Your task to perform on an android device: clear history in the chrome app Image 0: 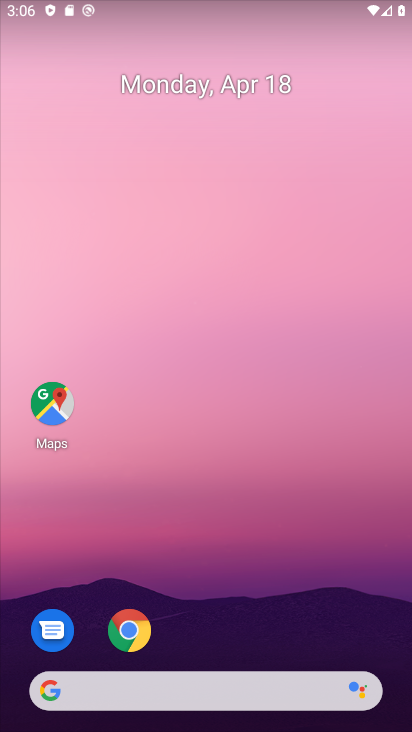
Step 0: click (125, 626)
Your task to perform on an android device: clear history in the chrome app Image 1: 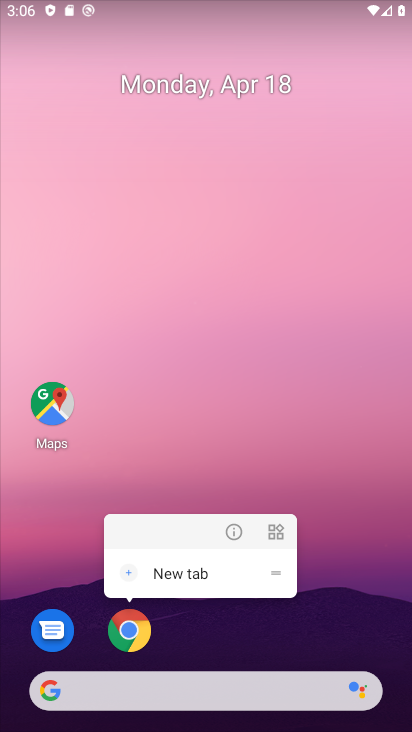
Step 1: click (139, 633)
Your task to perform on an android device: clear history in the chrome app Image 2: 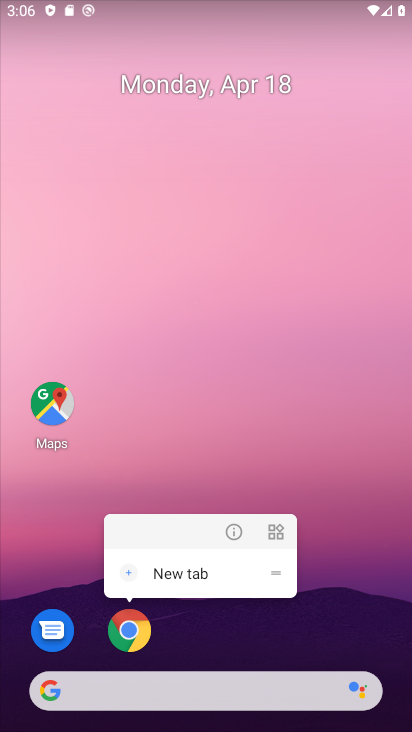
Step 2: click (126, 633)
Your task to perform on an android device: clear history in the chrome app Image 3: 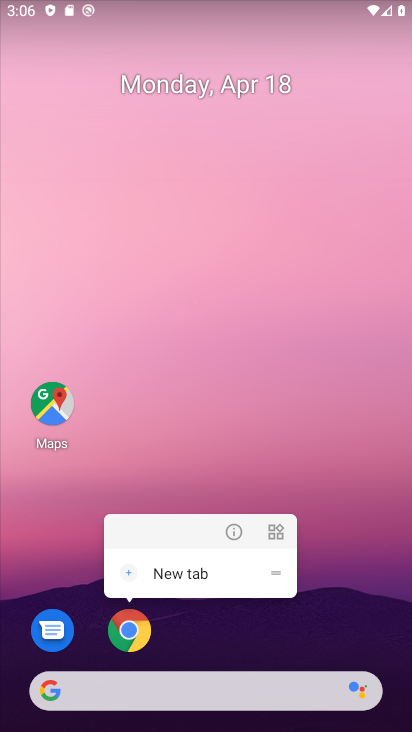
Step 3: click (134, 643)
Your task to perform on an android device: clear history in the chrome app Image 4: 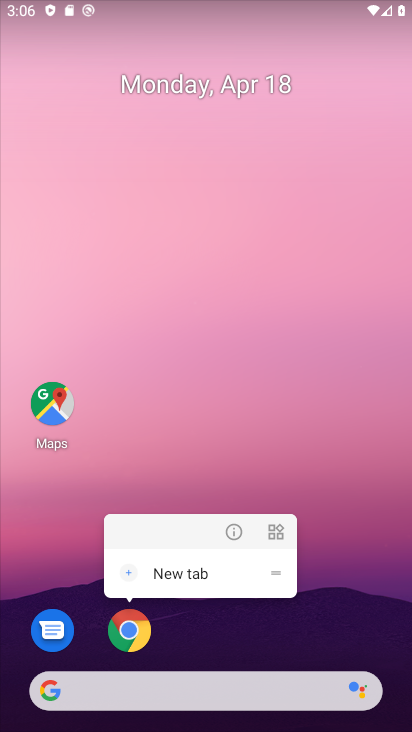
Step 4: click (134, 638)
Your task to perform on an android device: clear history in the chrome app Image 5: 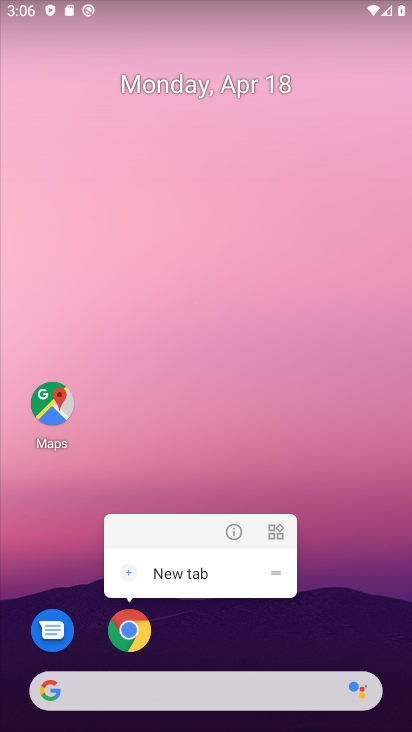
Step 5: click (144, 623)
Your task to perform on an android device: clear history in the chrome app Image 6: 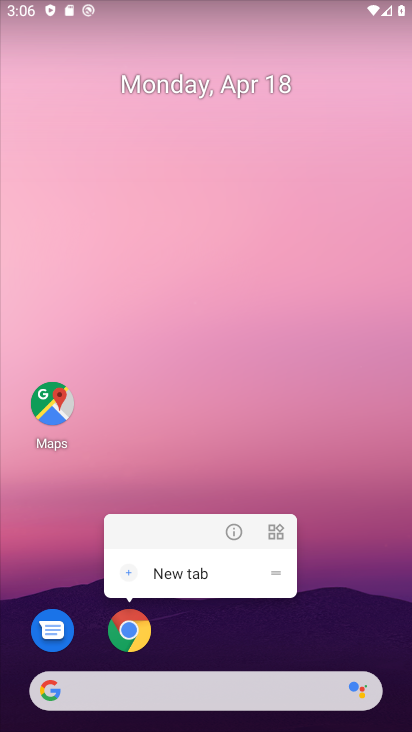
Step 6: click (117, 647)
Your task to perform on an android device: clear history in the chrome app Image 7: 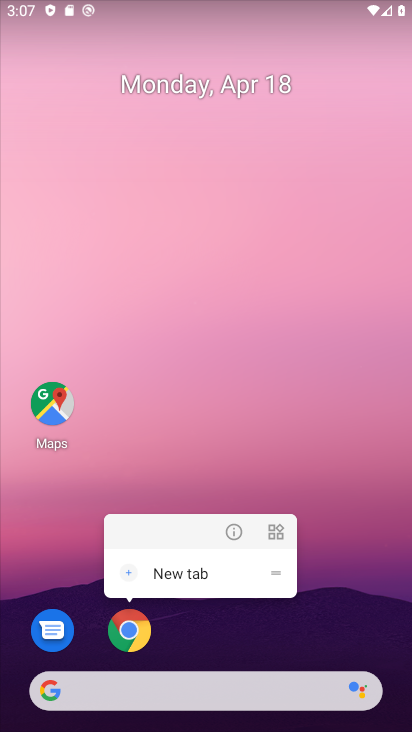
Step 7: click (123, 635)
Your task to perform on an android device: clear history in the chrome app Image 8: 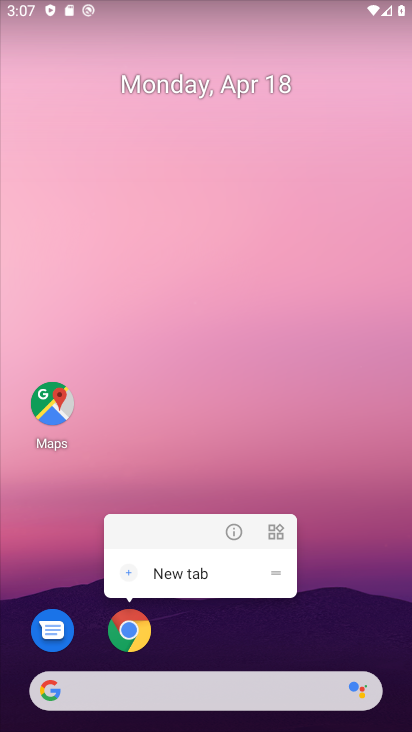
Step 8: click (123, 634)
Your task to perform on an android device: clear history in the chrome app Image 9: 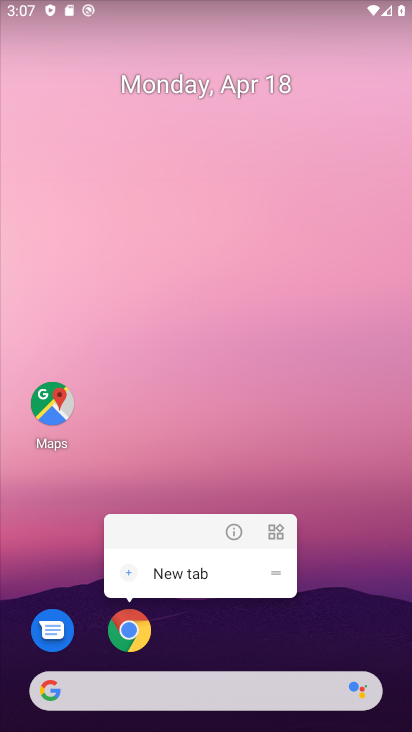
Step 9: click (141, 637)
Your task to perform on an android device: clear history in the chrome app Image 10: 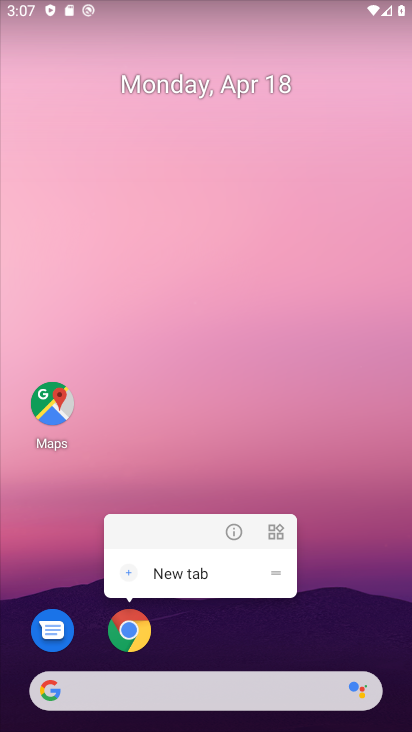
Step 10: click (236, 618)
Your task to perform on an android device: clear history in the chrome app Image 11: 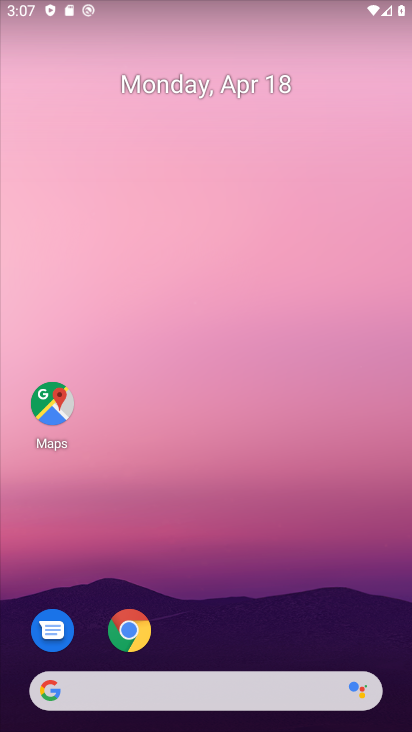
Step 11: click (144, 629)
Your task to perform on an android device: clear history in the chrome app Image 12: 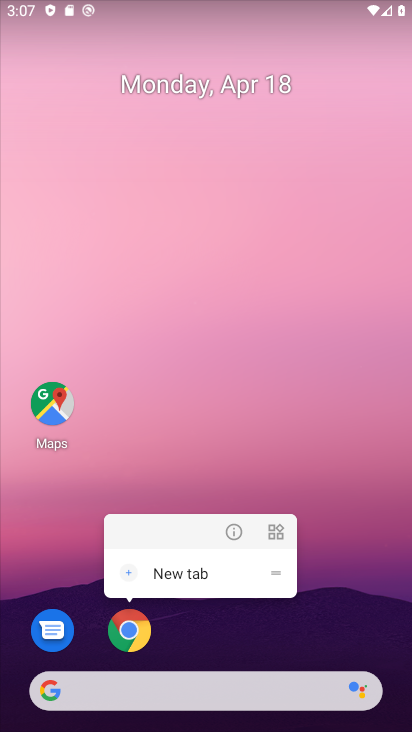
Step 12: click (131, 636)
Your task to perform on an android device: clear history in the chrome app Image 13: 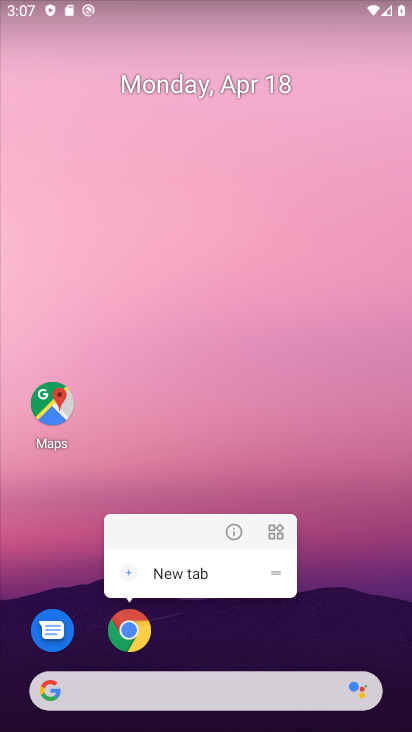
Step 13: click (118, 643)
Your task to perform on an android device: clear history in the chrome app Image 14: 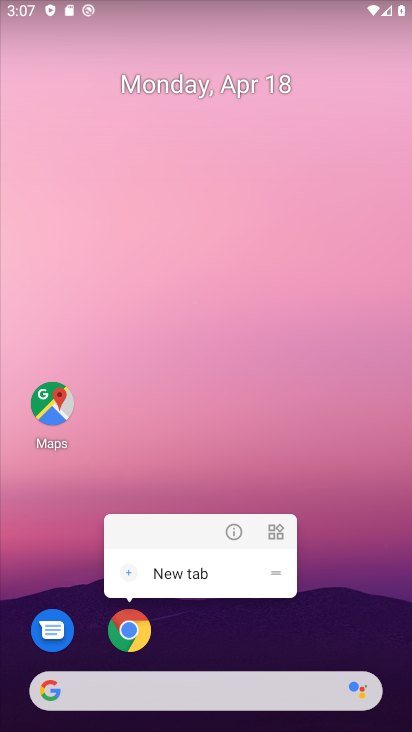
Step 14: click (128, 626)
Your task to perform on an android device: clear history in the chrome app Image 15: 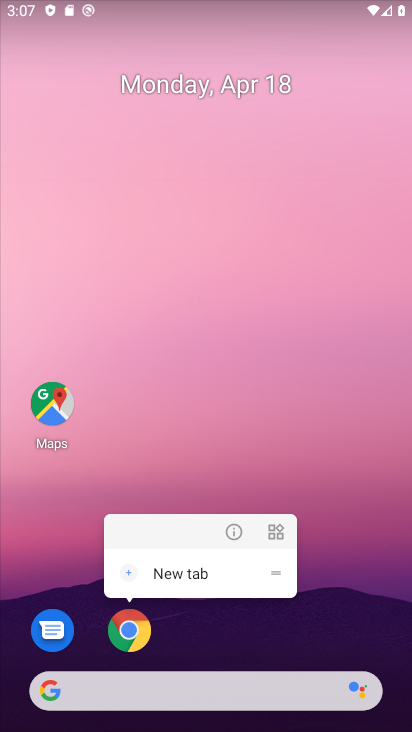
Step 15: click (132, 634)
Your task to perform on an android device: clear history in the chrome app Image 16: 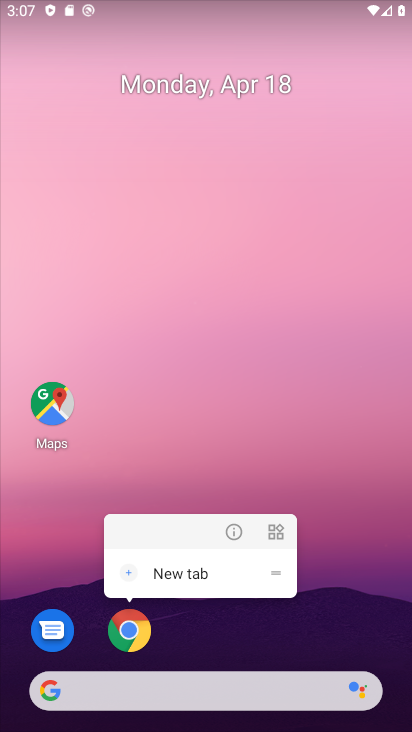
Step 16: drag from (365, 538) to (346, 2)
Your task to perform on an android device: clear history in the chrome app Image 17: 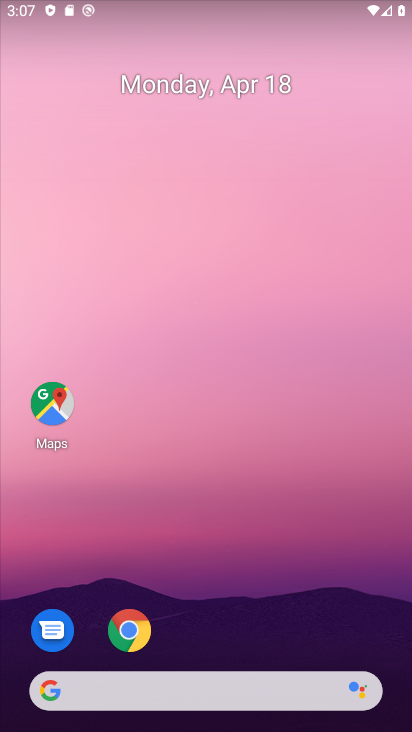
Step 17: drag from (289, 531) to (199, 120)
Your task to perform on an android device: clear history in the chrome app Image 18: 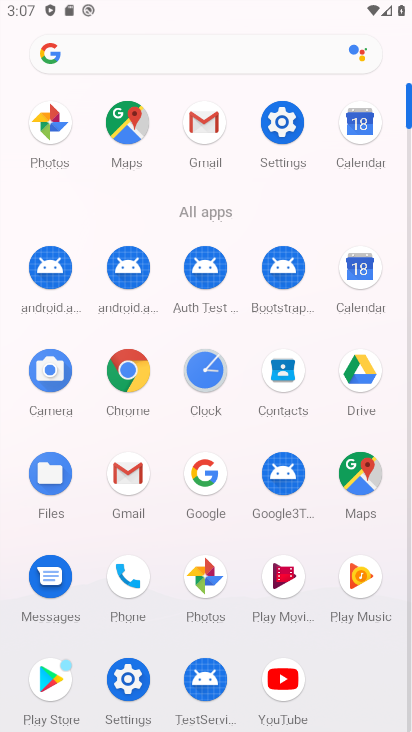
Step 18: click (127, 366)
Your task to perform on an android device: clear history in the chrome app Image 19: 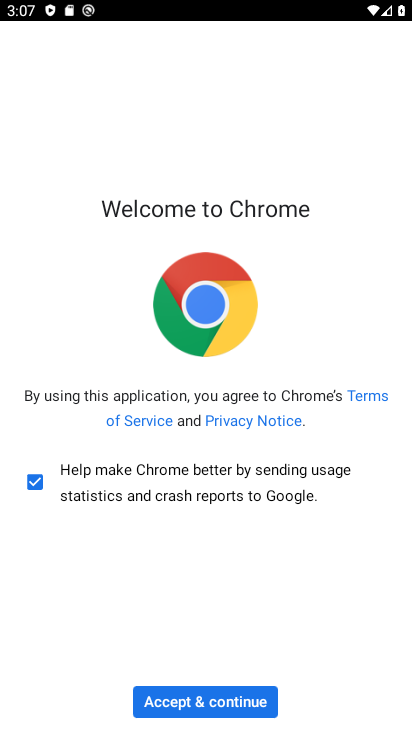
Step 19: click (225, 702)
Your task to perform on an android device: clear history in the chrome app Image 20: 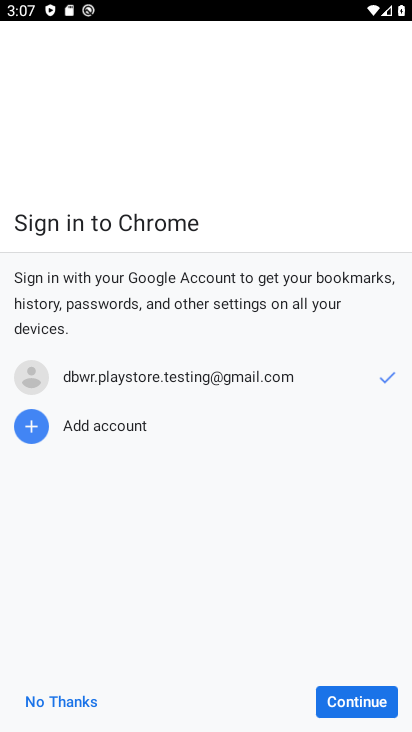
Step 20: click (384, 697)
Your task to perform on an android device: clear history in the chrome app Image 21: 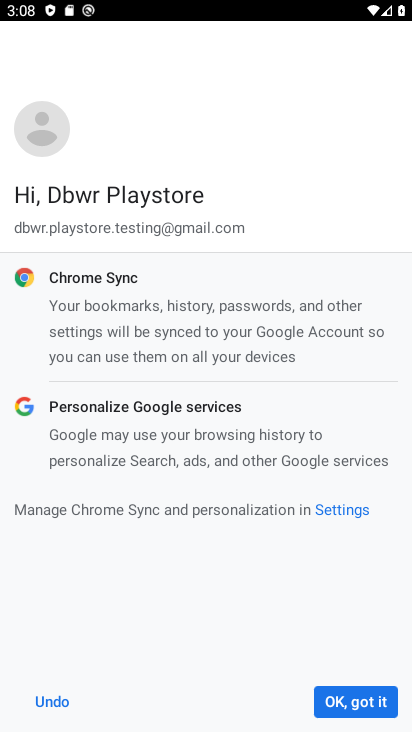
Step 21: click (384, 693)
Your task to perform on an android device: clear history in the chrome app Image 22: 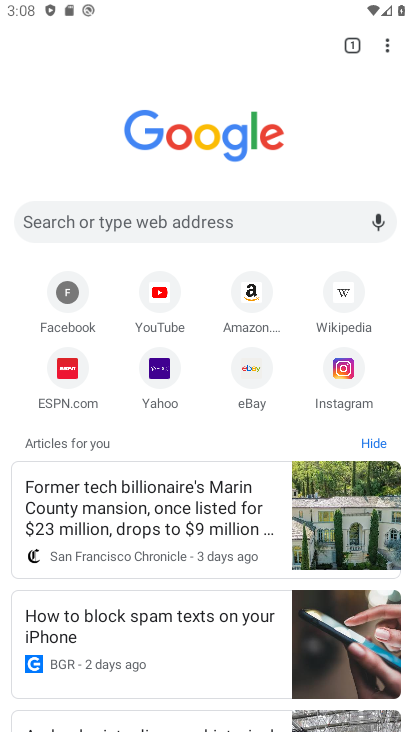
Step 22: click (386, 46)
Your task to perform on an android device: clear history in the chrome app Image 23: 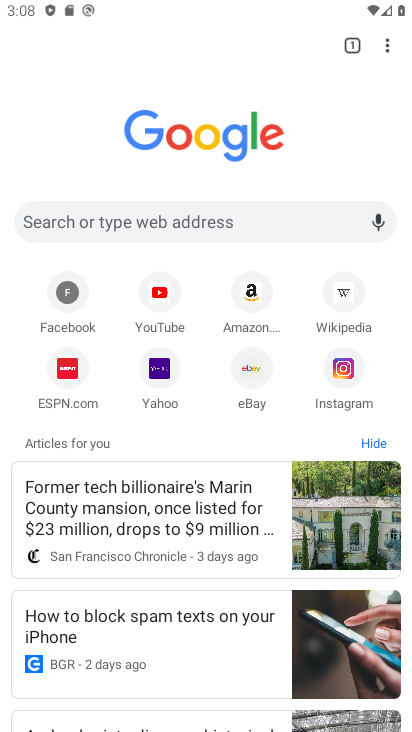
Step 23: drag from (387, 43) to (254, 268)
Your task to perform on an android device: clear history in the chrome app Image 24: 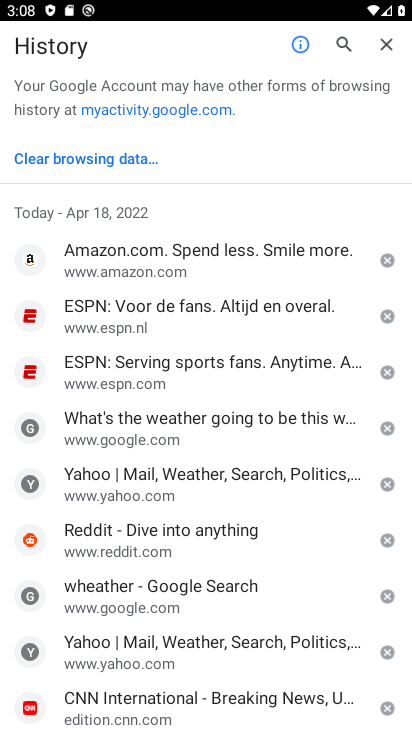
Step 24: click (115, 156)
Your task to perform on an android device: clear history in the chrome app Image 25: 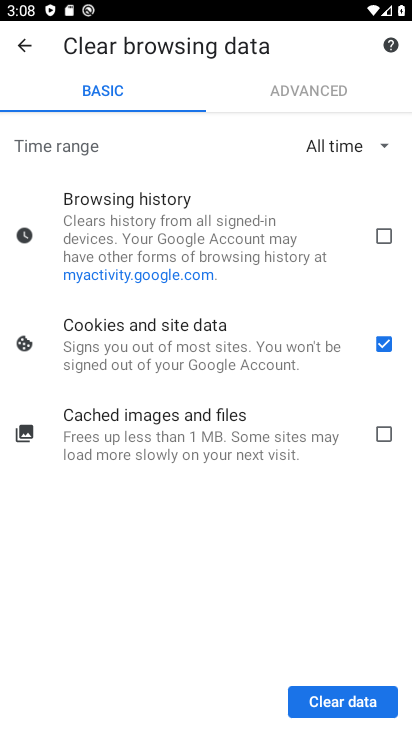
Step 25: click (389, 224)
Your task to perform on an android device: clear history in the chrome app Image 26: 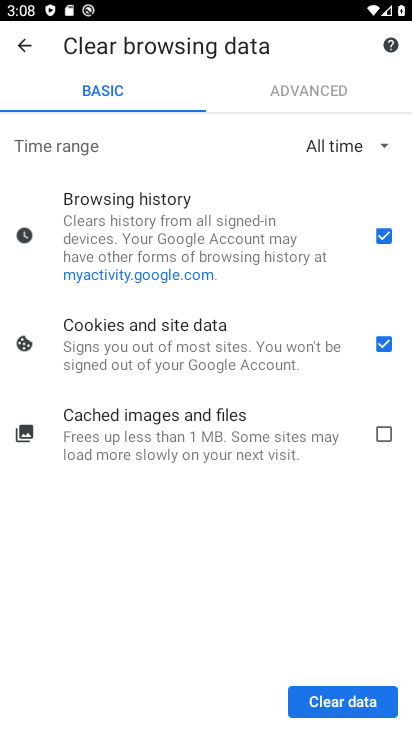
Step 26: click (358, 704)
Your task to perform on an android device: clear history in the chrome app Image 27: 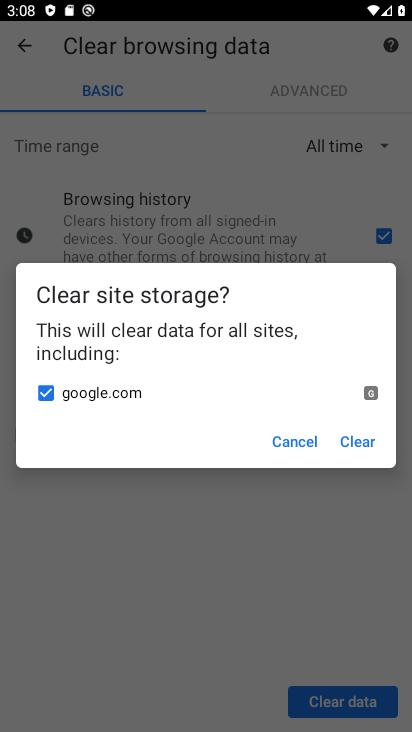
Step 27: click (366, 442)
Your task to perform on an android device: clear history in the chrome app Image 28: 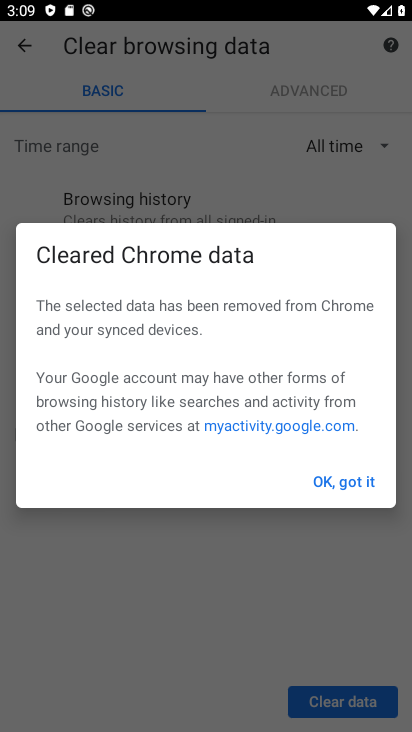
Step 28: task complete